Your task to perform on an android device: read, delete, or share a saved page in the chrome app Image 0: 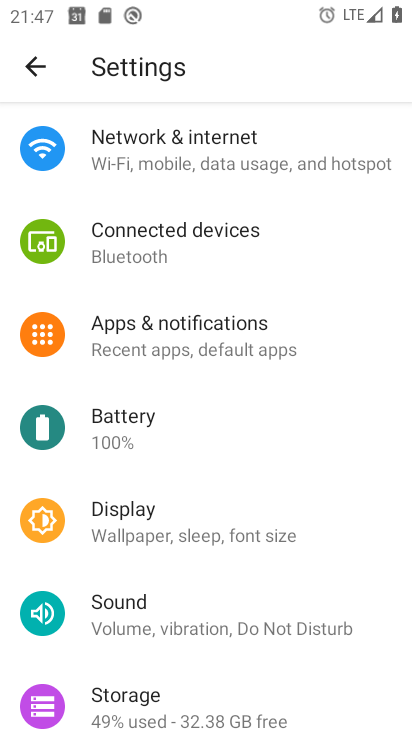
Step 0: press home button
Your task to perform on an android device: read, delete, or share a saved page in the chrome app Image 1: 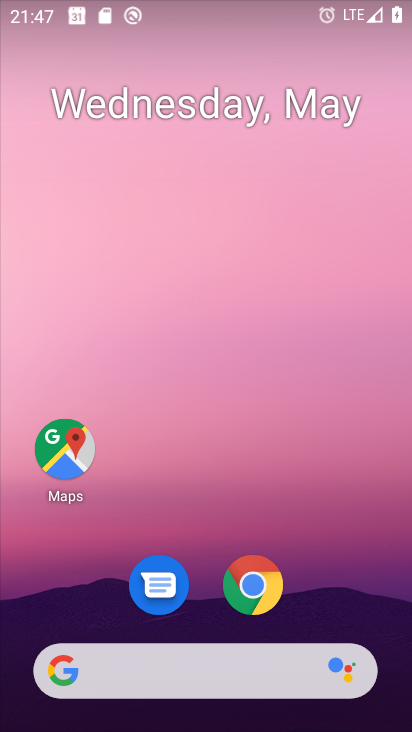
Step 1: click (259, 576)
Your task to perform on an android device: read, delete, or share a saved page in the chrome app Image 2: 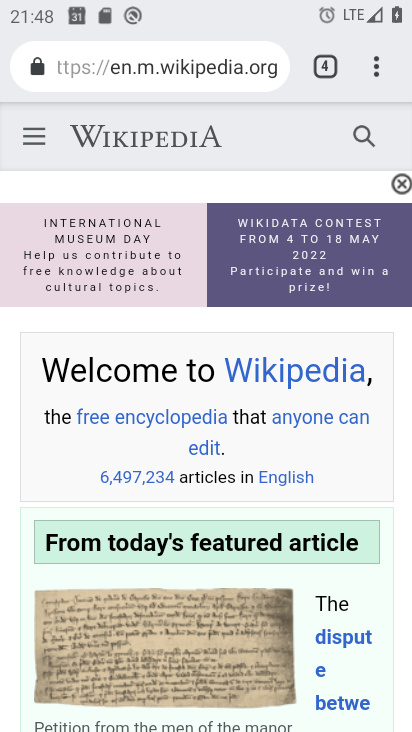
Step 2: click (375, 69)
Your task to perform on an android device: read, delete, or share a saved page in the chrome app Image 3: 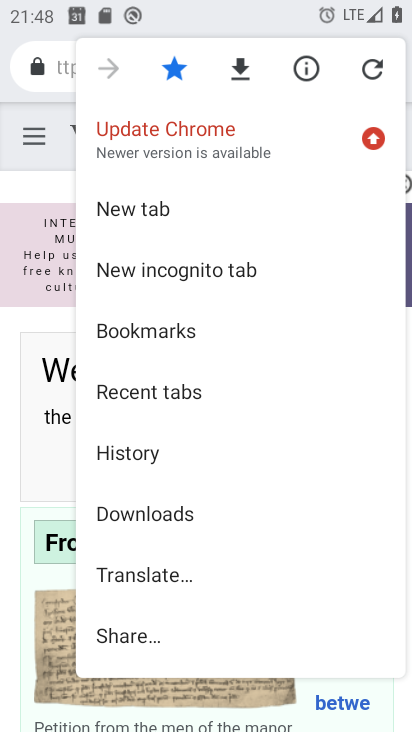
Step 3: click (184, 510)
Your task to perform on an android device: read, delete, or share a saved page in the chrome app Image 4: 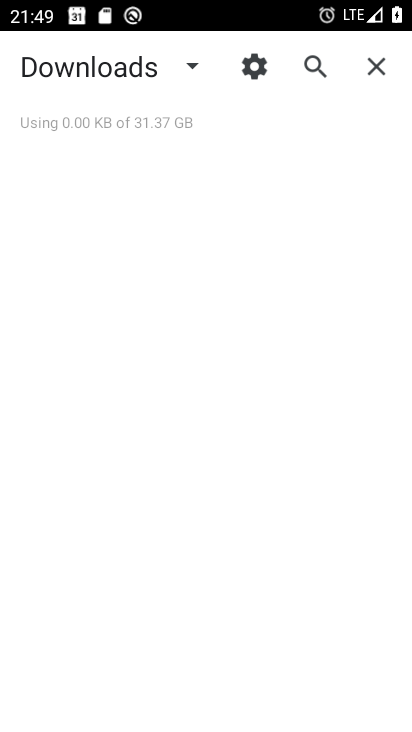
Step 4: task complete